Your task to perform on an android device: open app "Nova Launcher" (install if not already installed) Image 0: 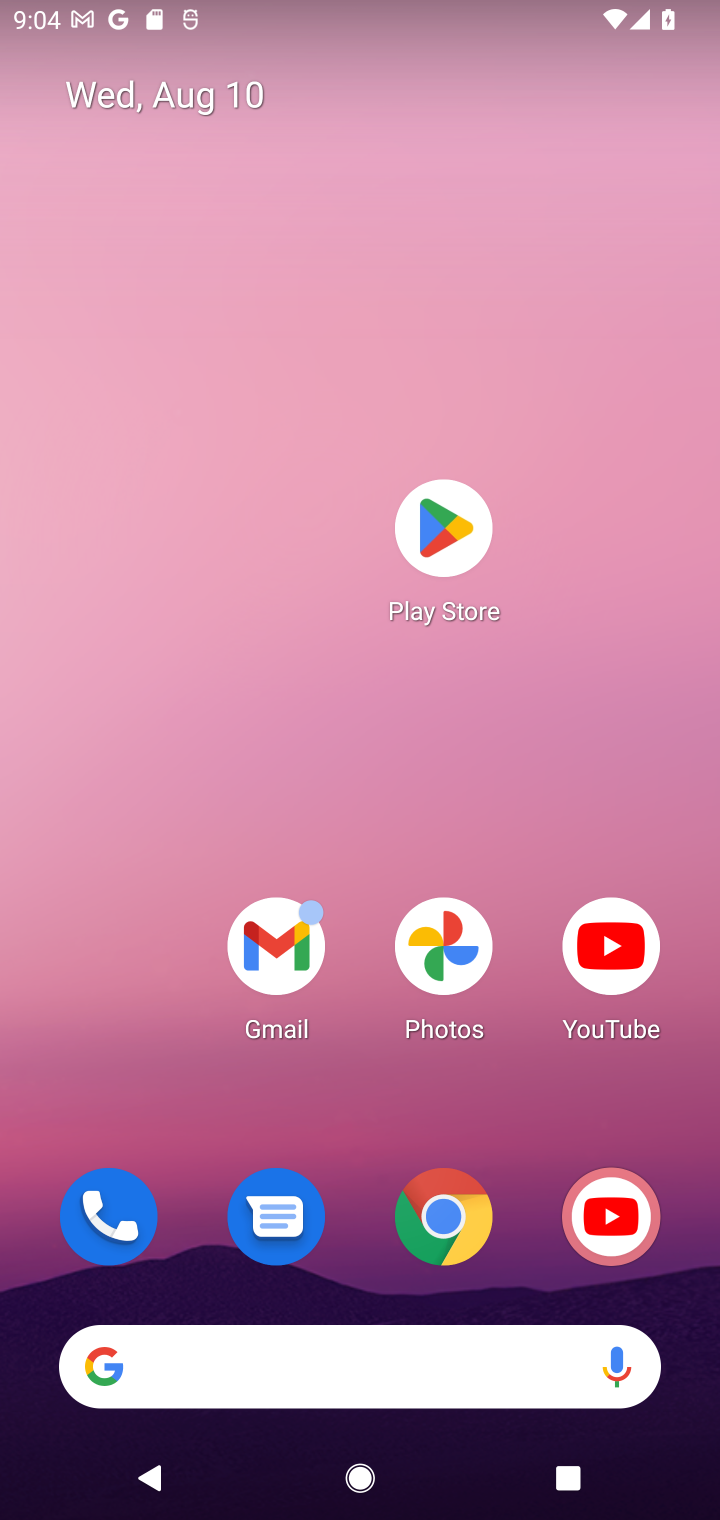
Step 0: click (447, 527)
Your task to perform on an android device: open app "Nova Launcher" (install if not already installed) Image 1: 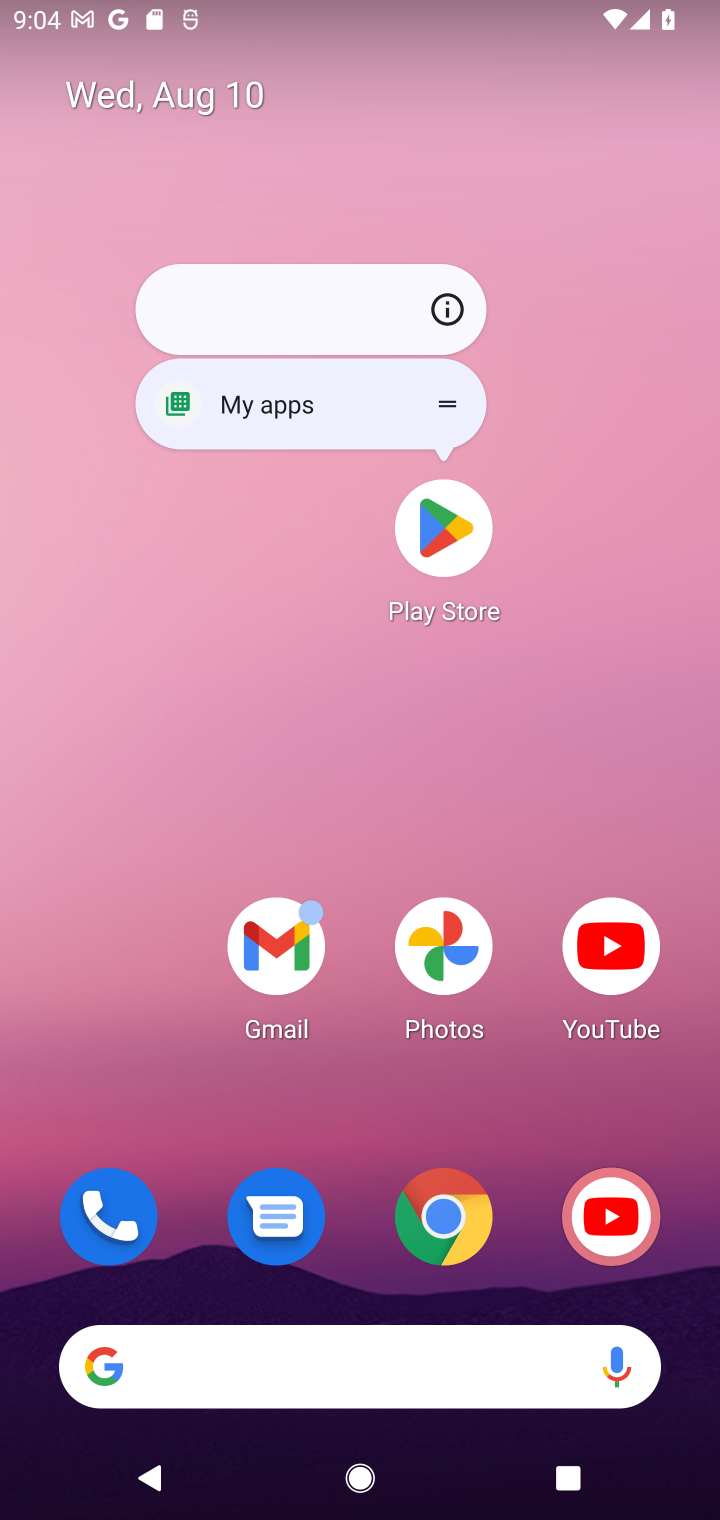
Step 1: click (447, 531)
Your task to perform on an android device: open app "Nova Launcher" (install if not already installed) Image 2: 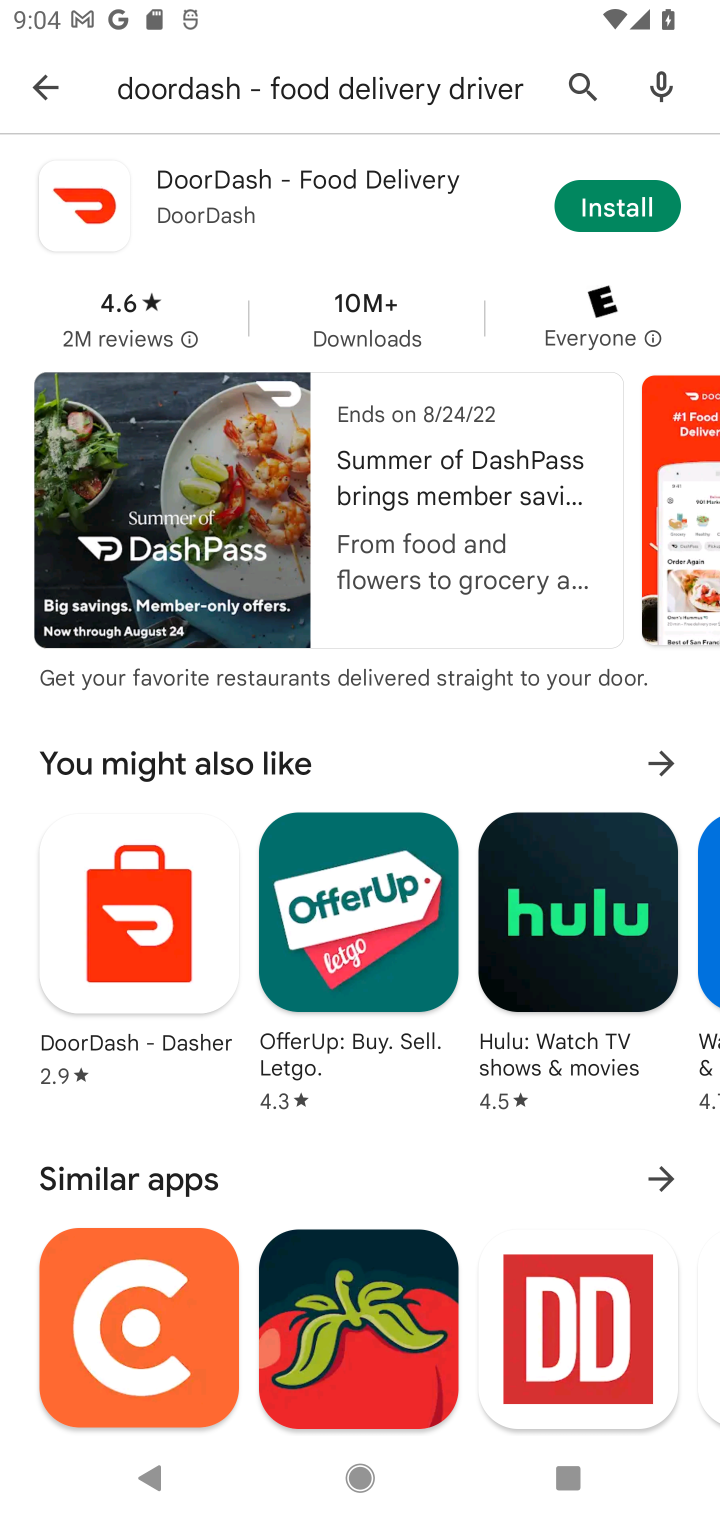
Step 2: click (572, 87)
Your task to perform on an android device: open app "Nova Launcher" (install if not already installed) Image 3: 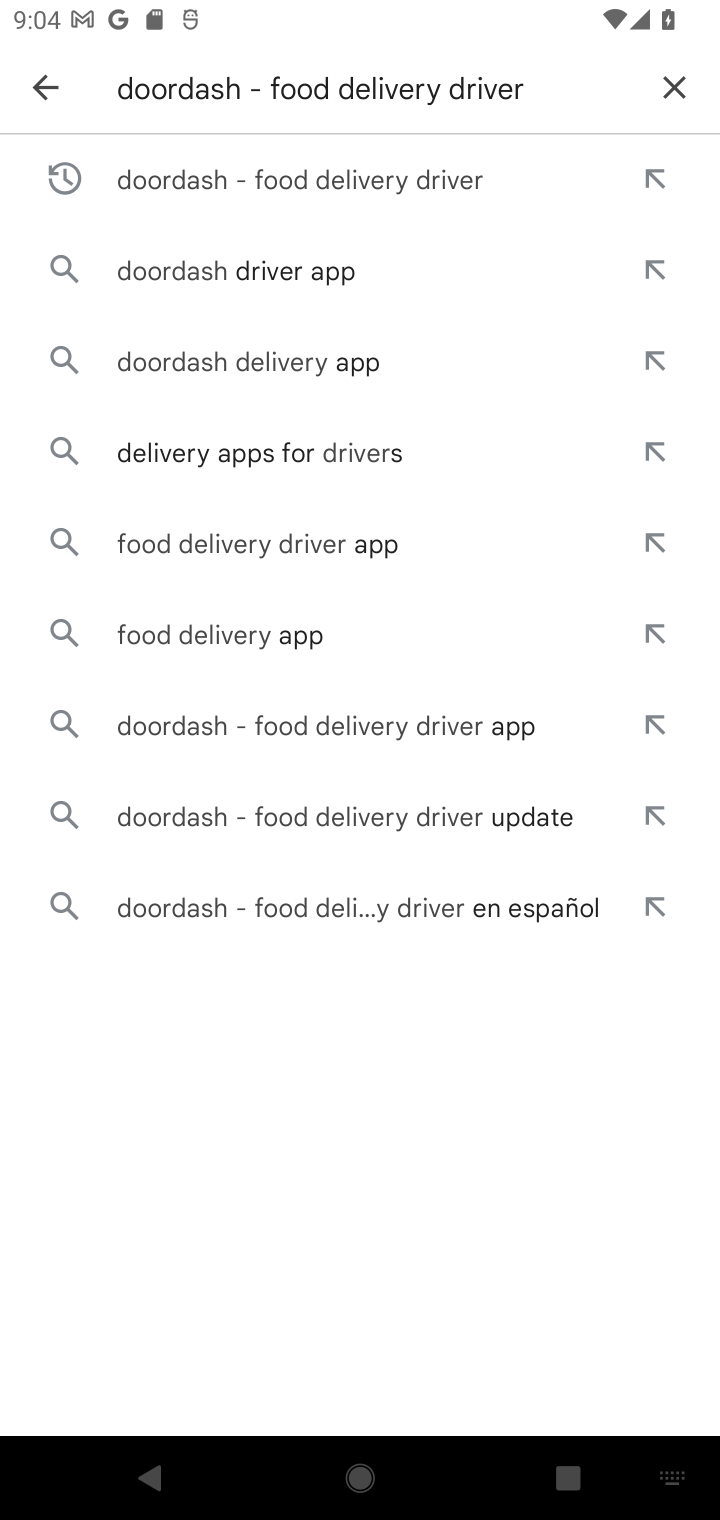
Step 3: click (674, 87)
Your task to perform on an android device: open app "Nova Launcher" (install if not already installed) Image 4: 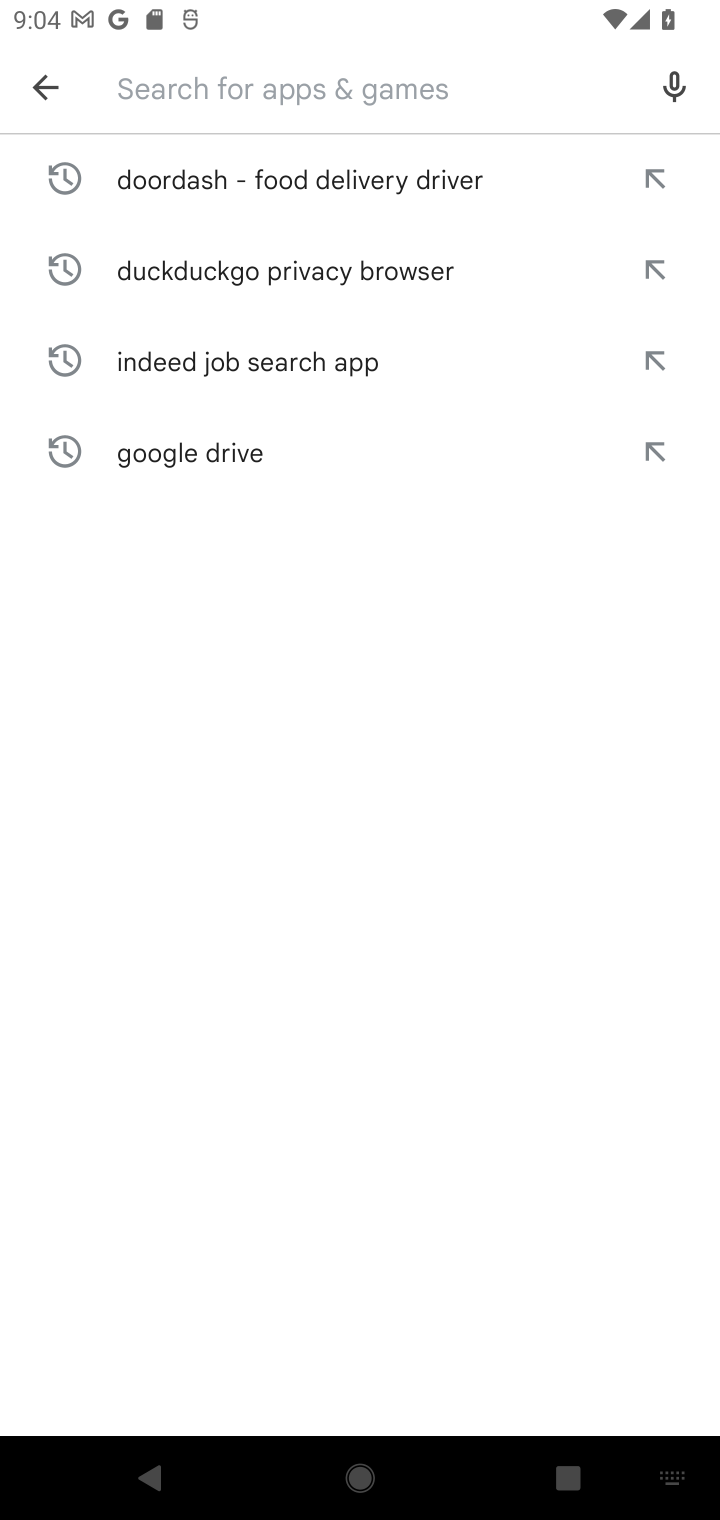
Step 4: type "Nova Launcher"
Your task to perform on an android device: open app "Nova Launcher" (install if not already installed) Image 5: 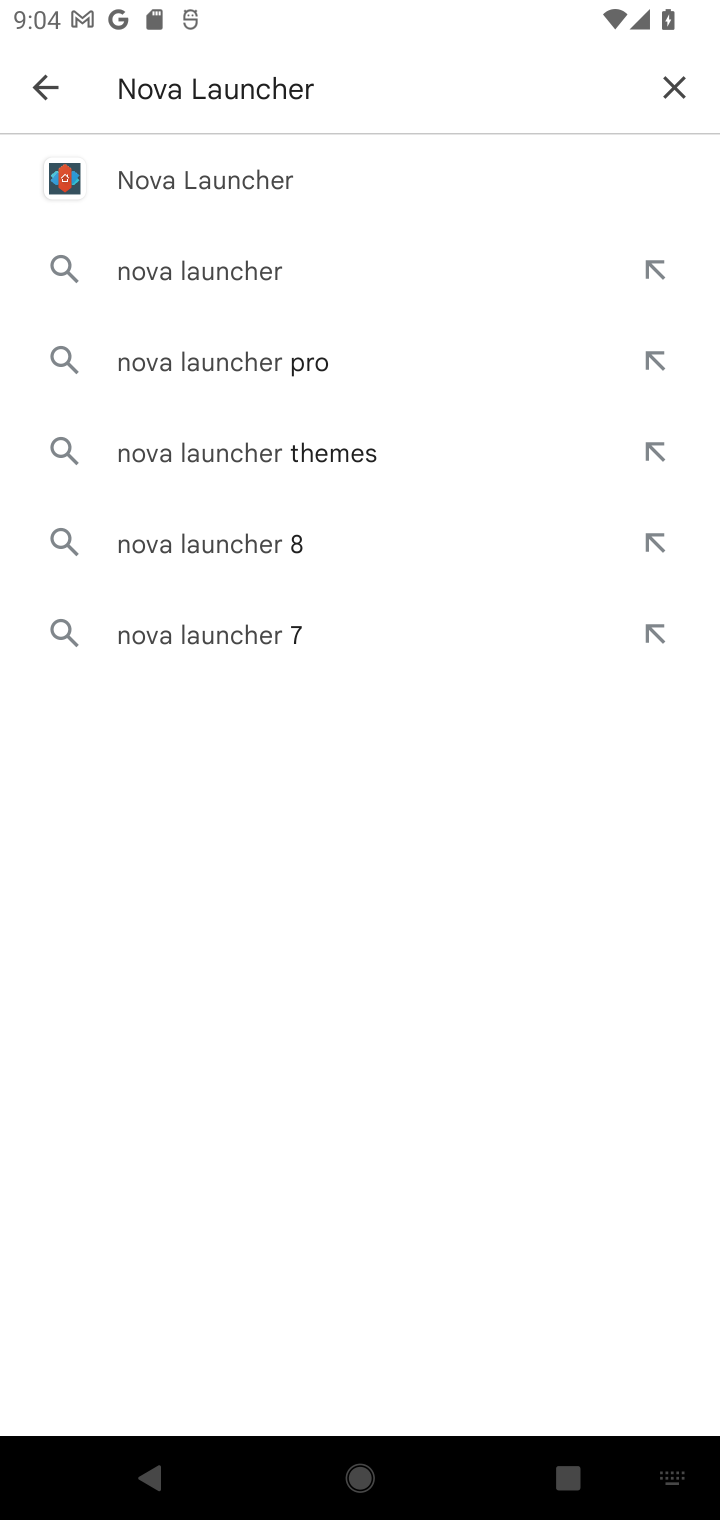
Step 5: click (264, 178)
Your task to perform on an android device: open app "Nova Launcher" (install if not already installed) Image 6: 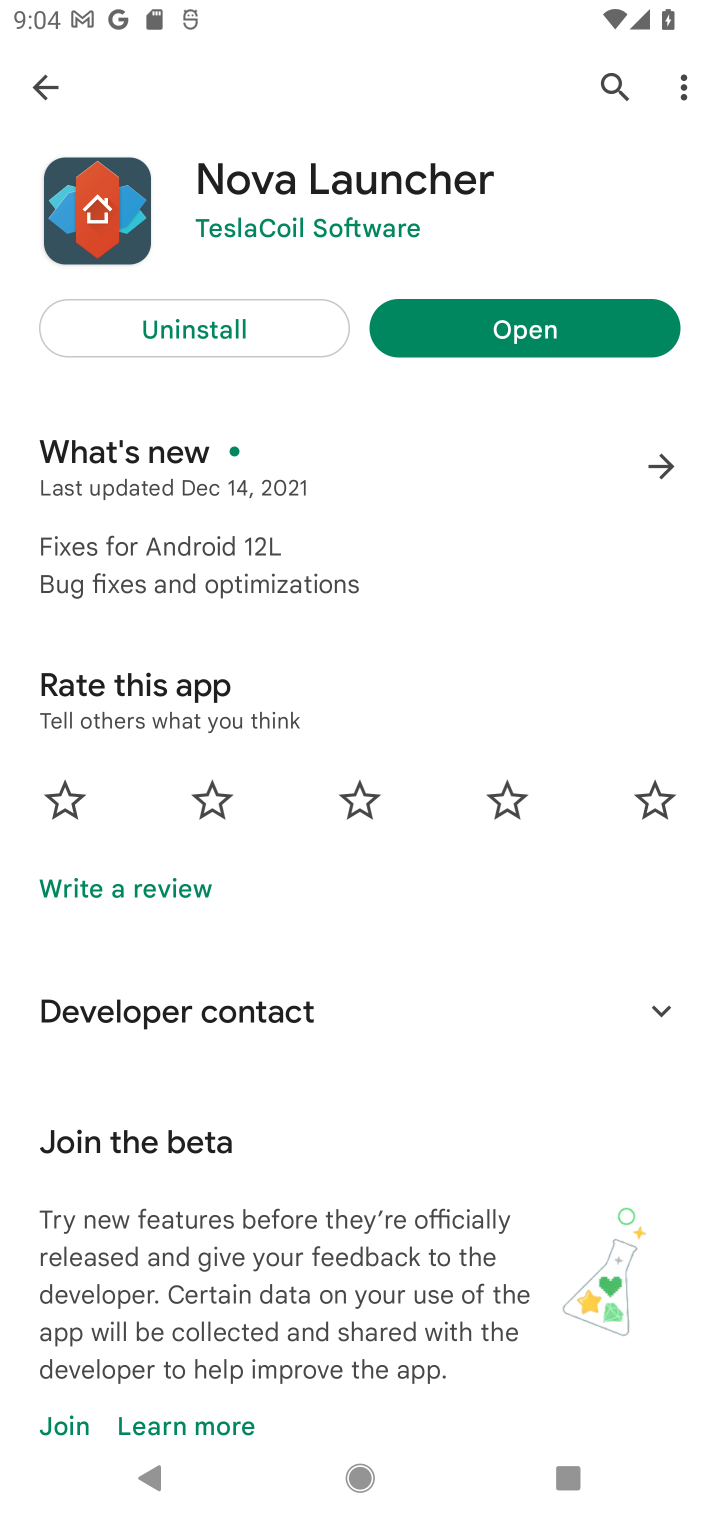
Step 6: click (493, 337)
Your task to perform on an android device: open app "Nova Launcher" (install if not already installed) Image 7: 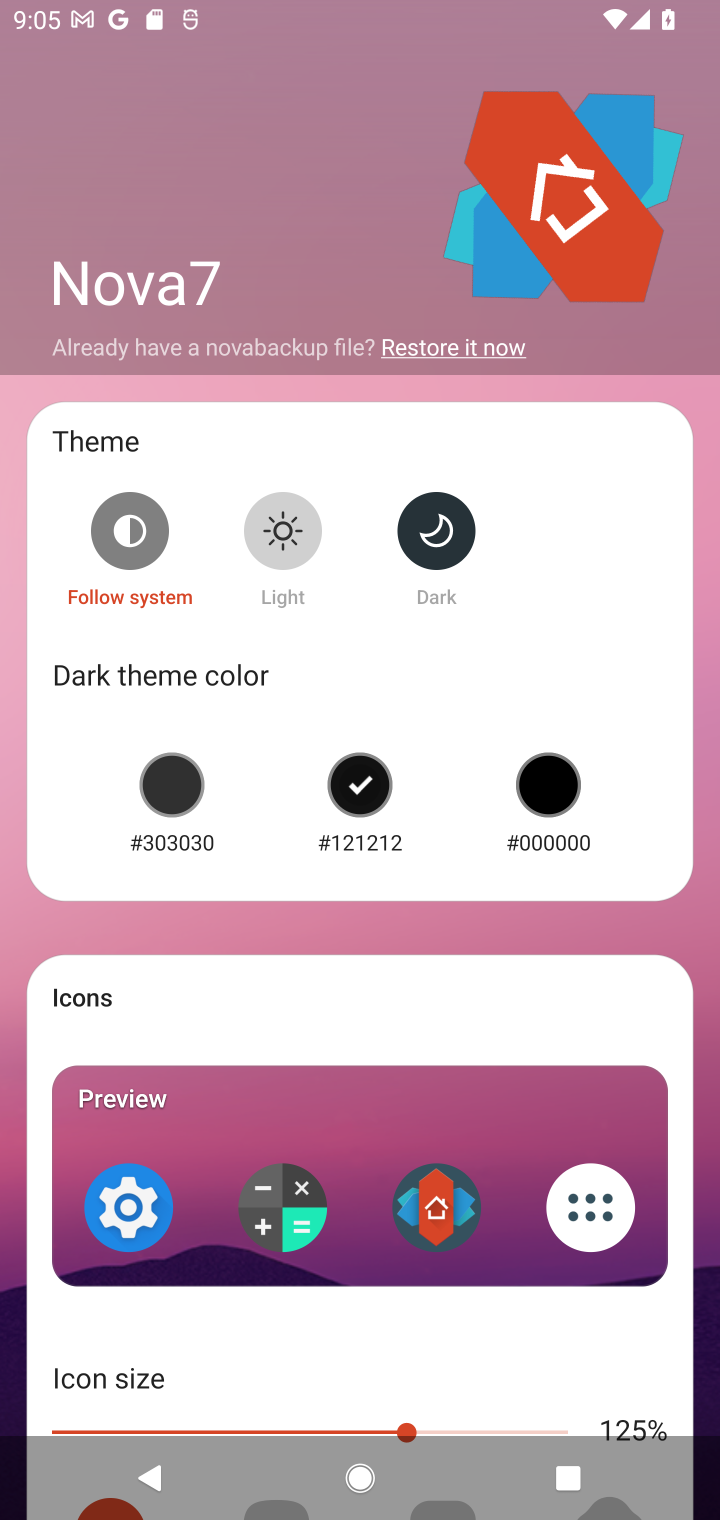
Step 7: task complete